Your task to perform on an android device: Go to Google Image 0: 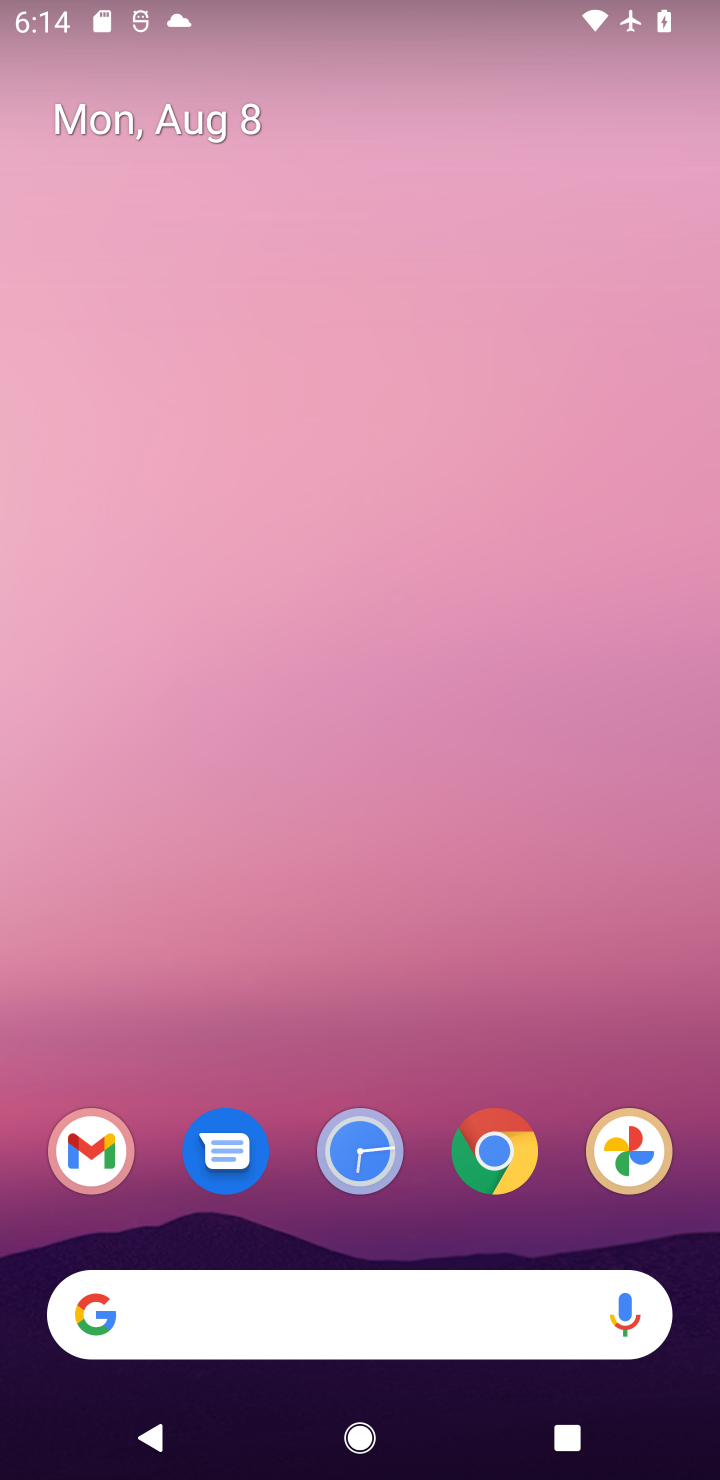
Step 0: drag from (402, 1022) to (414, 306)
Your task to perform on an android device: Go to Google Image 1: 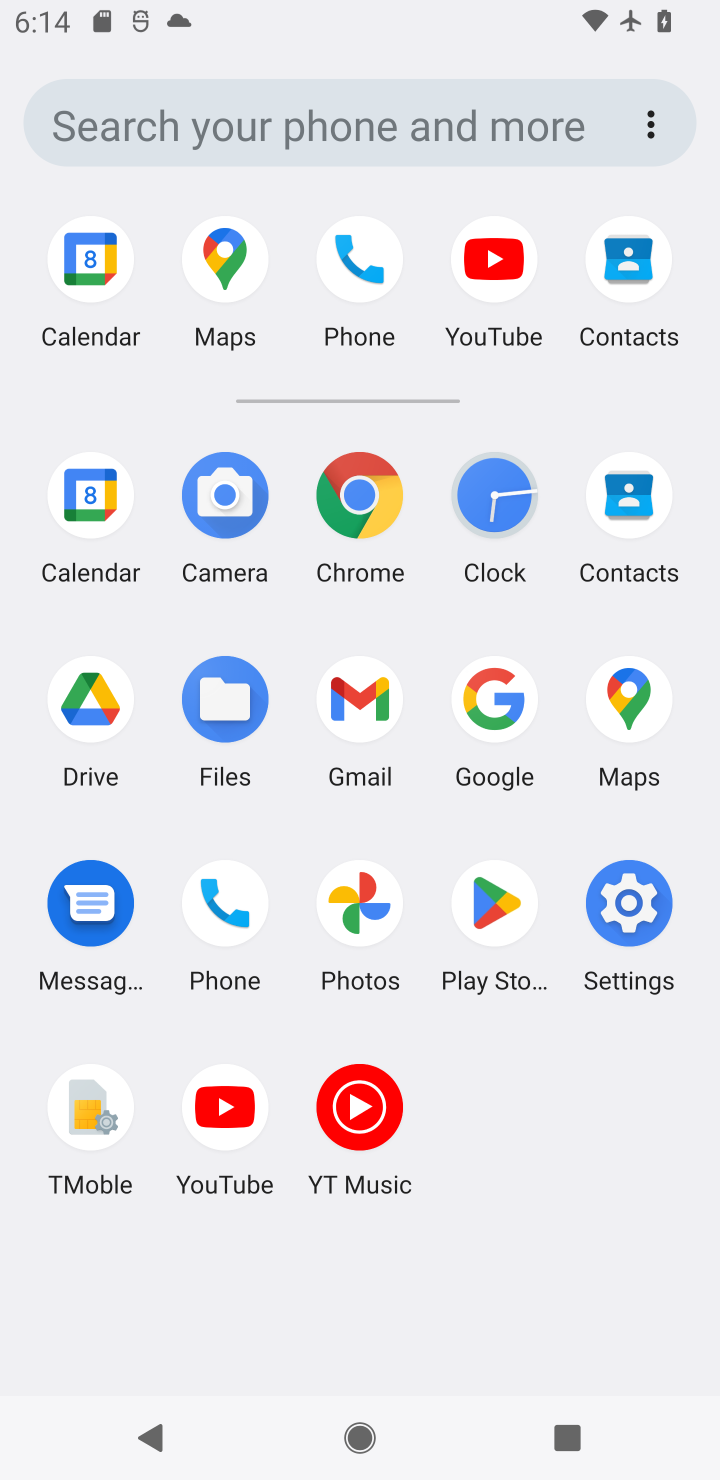
Step 1: click (475, 705)
Your task to perform on an android device: Go to Google Image 2: 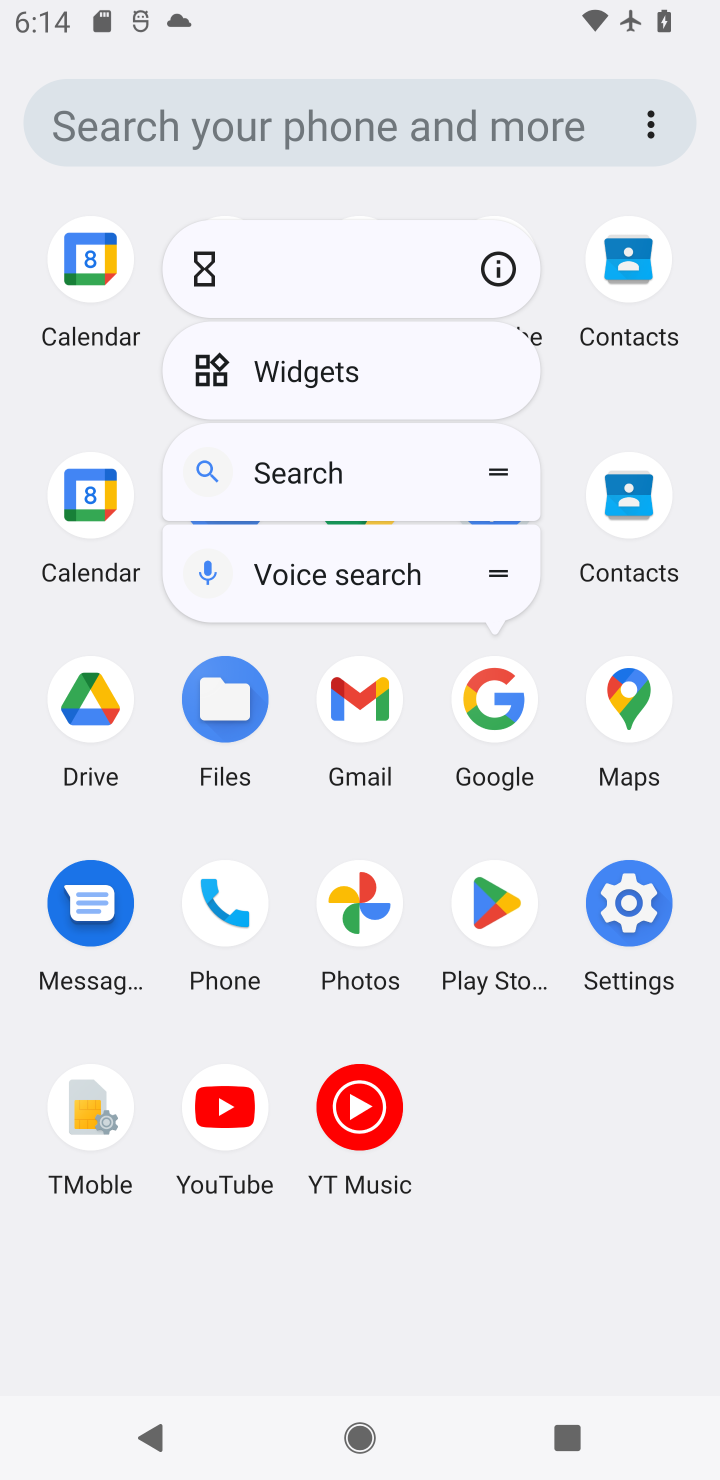
Step 2: click (473, 731)
Your task to perform on an android device: Go to Google Image 3: 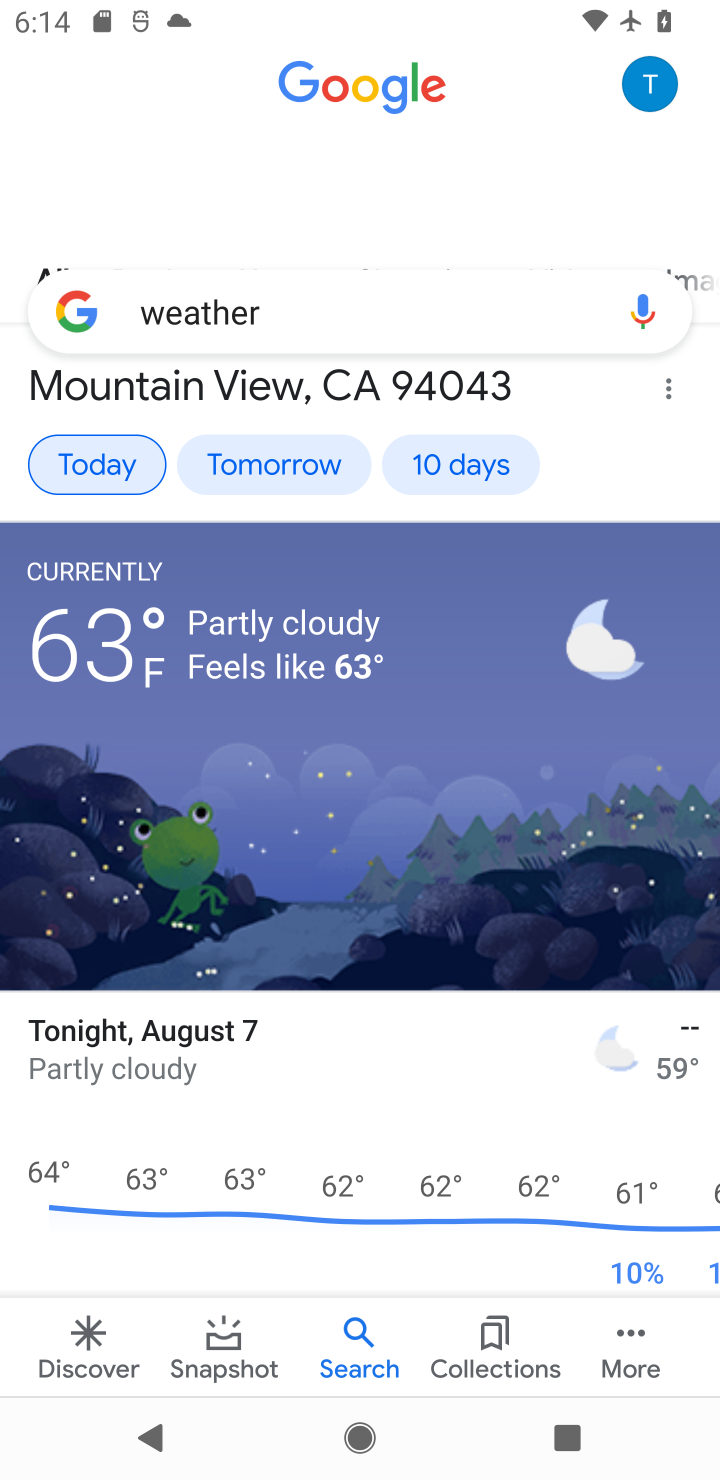
Step 3: task complete